Your task to perform on an android device: Show me productivity apps on the Play Store Image 0: 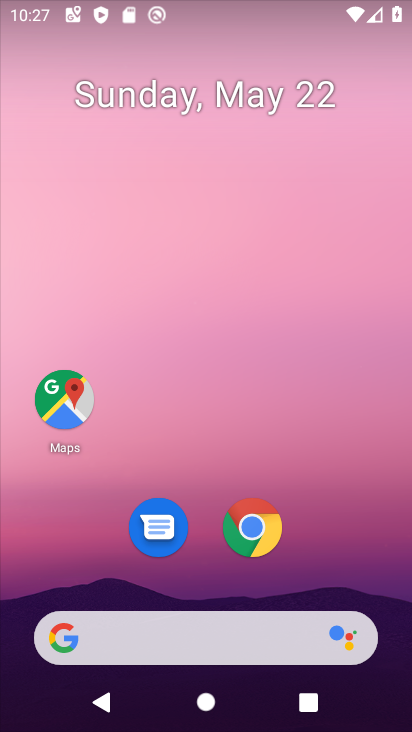
Step 0: drag from (353, 553) to (343, 106)
Your task to perform on an android device: Show me productivity apps on the Play Store Image 1: 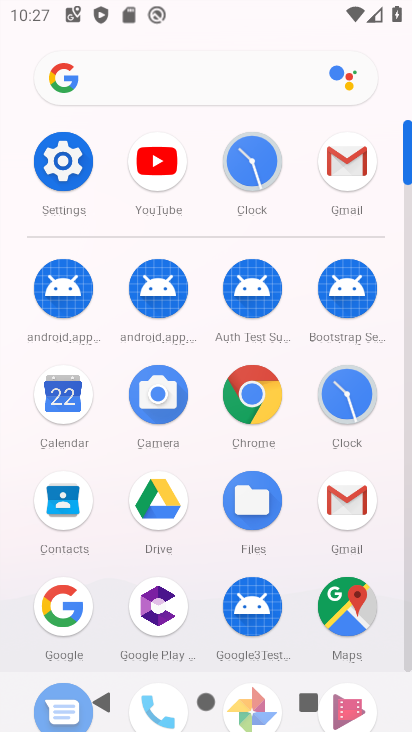
Step 1: click (406, 657)
Your task to perform on an android device: Show me productivity apps on the Play Store Image 2: 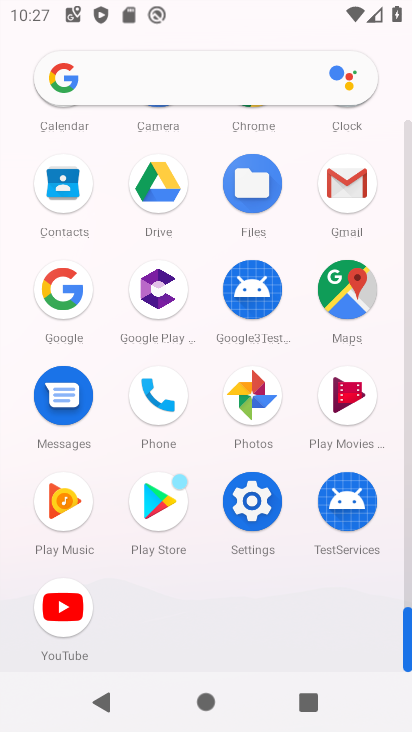
Step 2: click (75, 611)
Your task to perform on an android device: Show me productivity apps on the Play Store Image 3: 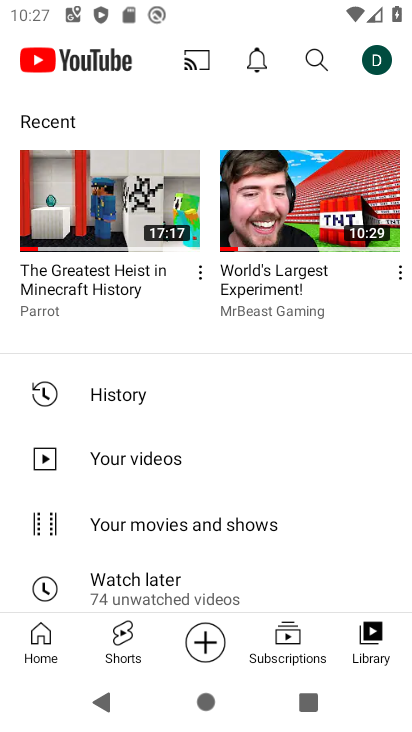
Step 3: press home button
Your task to perform on an android device: Show me productivity apps on the Play Store Image 4: 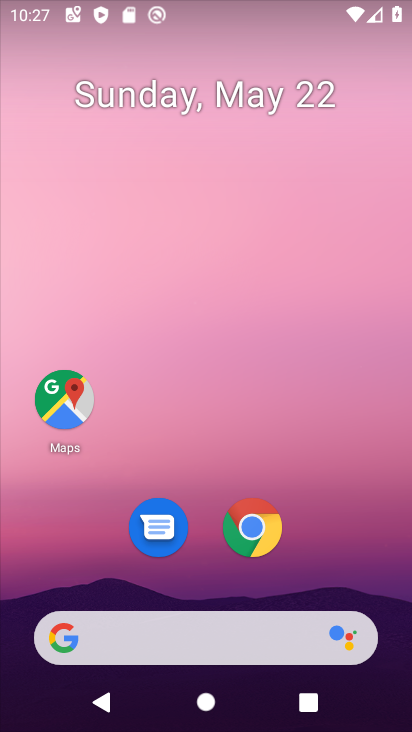
Step 4: drag from (343, 585) to (345, 175)
Your task to perform on an android device: Show me productivity apps on the Play Store Image 5: 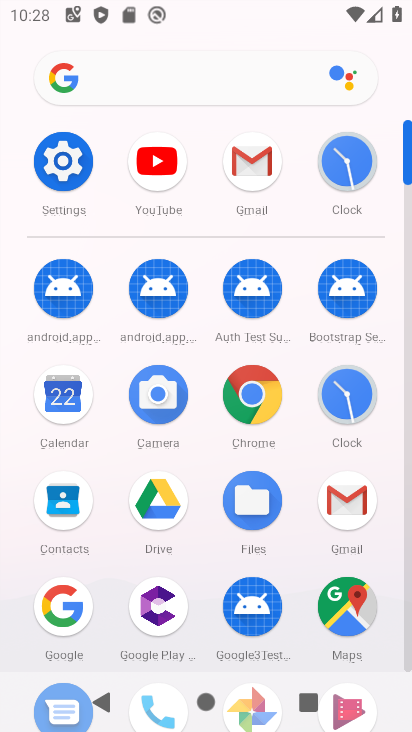
Step 5: click (410, 413)
Your task to perform on an android device: Show me productivity apps on the Play Store Image 6: 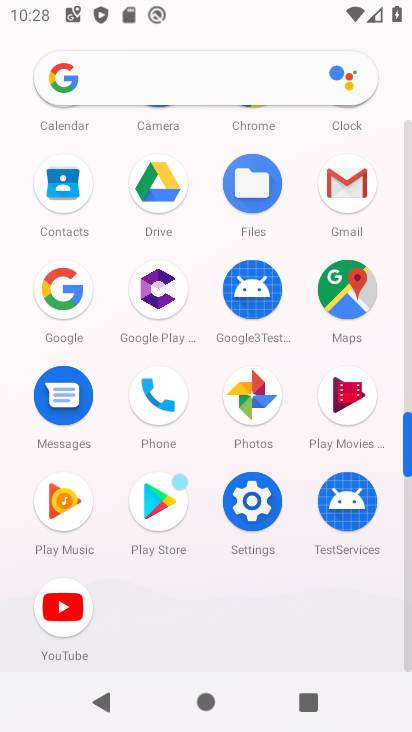
Step 6: click (171, 521)
Your task to perform on an android device: Show me productivity apps on the Play Store Image 7: 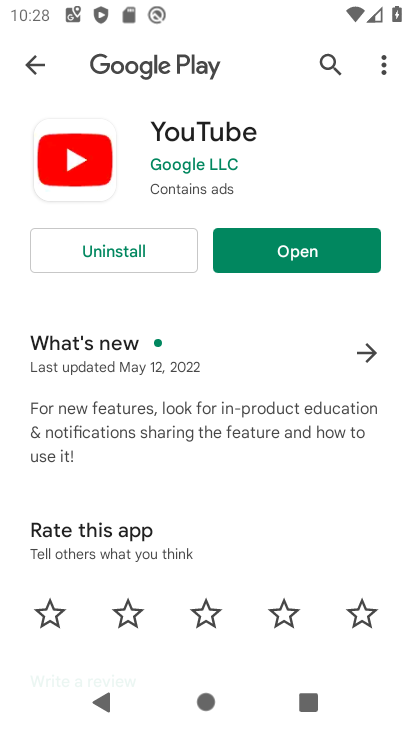
Step 7: click (36, 73)
Your task to perform on an android device: Show me productivity apps on the Play Store Image 8: 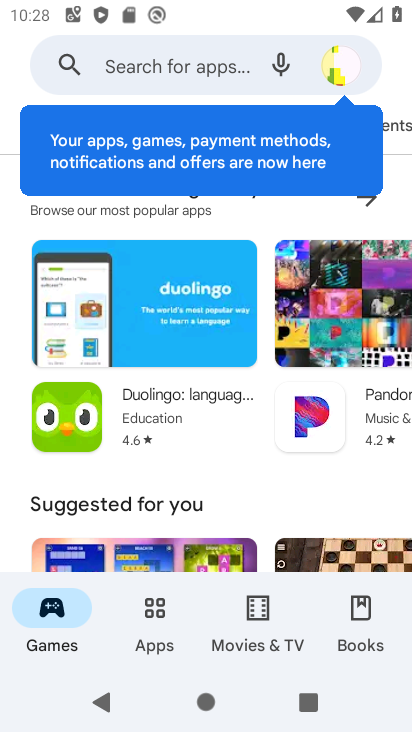
Step 8: click (153, 618)
Your task to perform on an android device: Show me productivity apps on the Play Store Image 9: 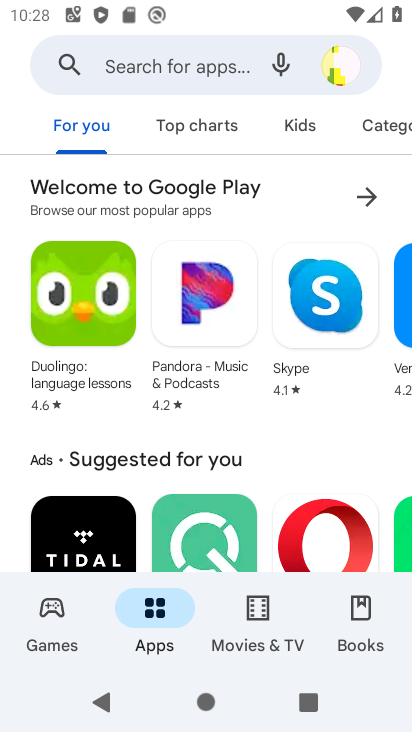
Step 9: click (223, 137)
Your task to perform on an android device: Show me productivity apps on the Play Store Image 10: 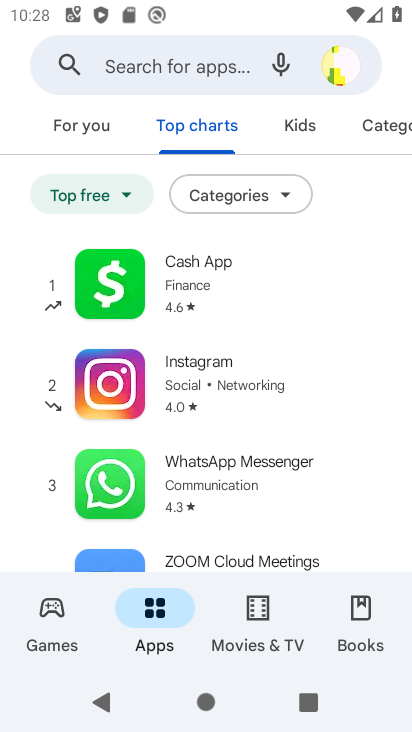
Step 10: click (223, 193)
Your task to perform on an android device: Show me productivity apps on the Play Store Image 11: 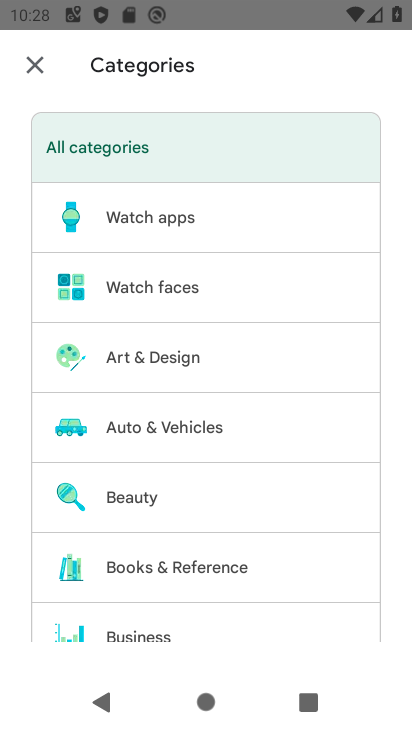
Step 11: drag from (206, 626) to (238, 145)
Your task to perform on an android device: Show me productivity apps on the Play Store Image 12: 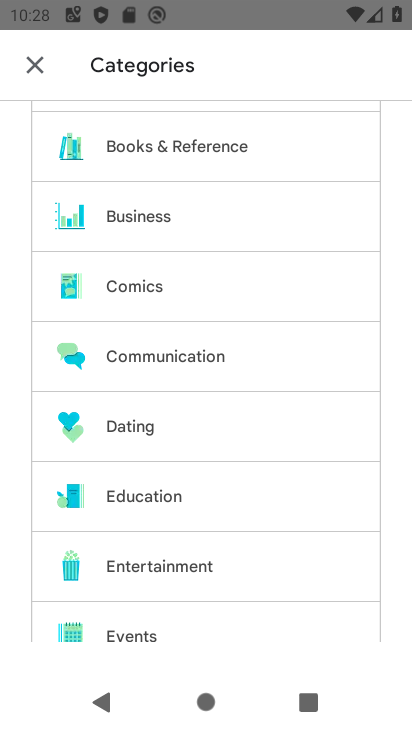
Step 12: drag from (239, 600) to (249, 207)
Your task to perform on an android device: Show me productivity apps on the Play Store Image 13: 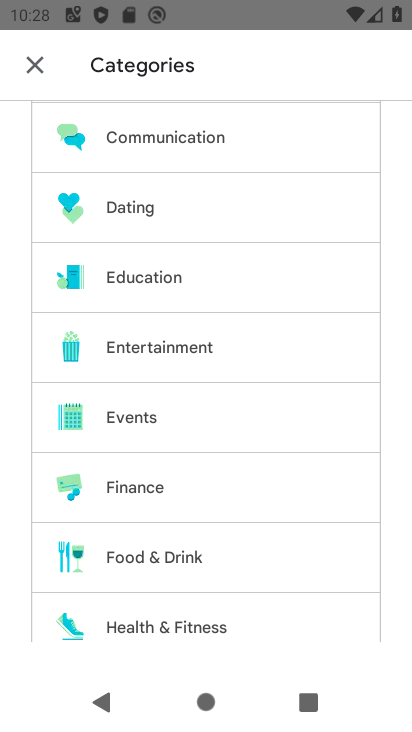
Step 13: drag from (206, 575) to (226, 213)
Your task to perform on an android device: Show me productivity apps on the Play Store Image 14: 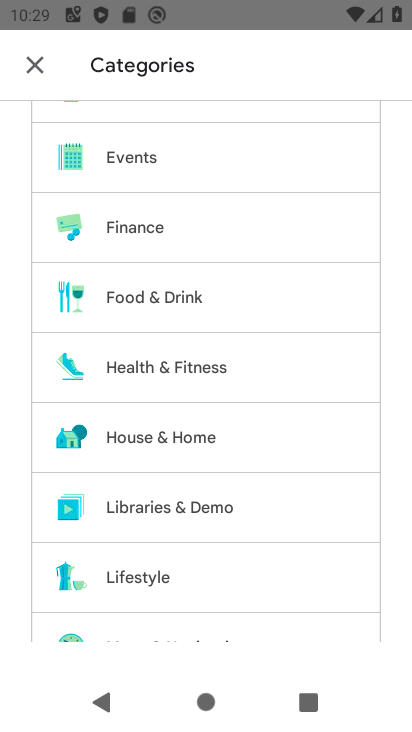
Step 14: drag from (179, 607) to (219, 337)
Your task to perform on an android device: Show me productivity apps on the Play Store Image 15: 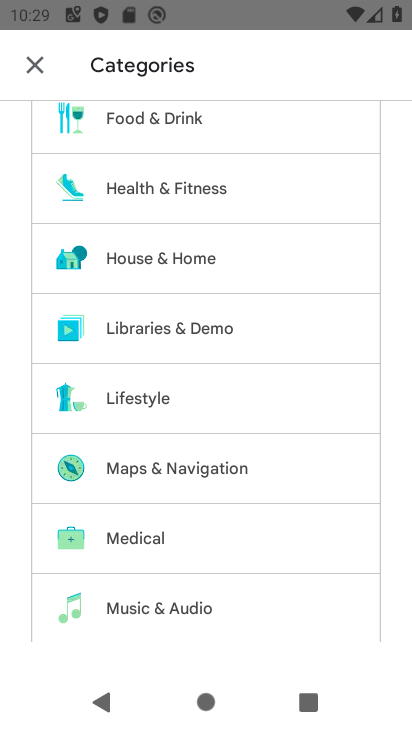
Step 15: drag from (191, 580) to (231, 120)
Your task to perform on an android device: Show me productivity apps on the Play Store Image 16: 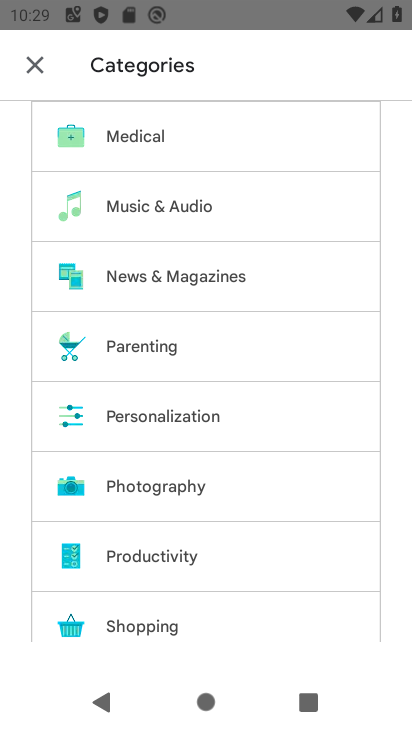
Step 16: click (177, 551)
Your task to perform on an android device: Show me productivity apps on the Play Store Image 17: 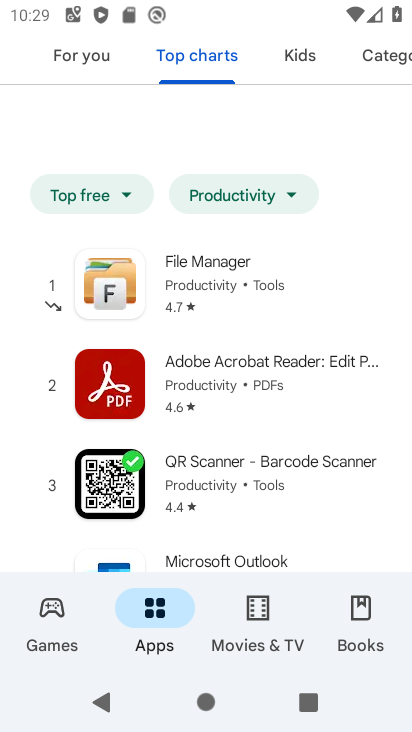
Step 17: task complete